Your task to perform on an android device: Search for Mexican restaurants on Maps Image 0: 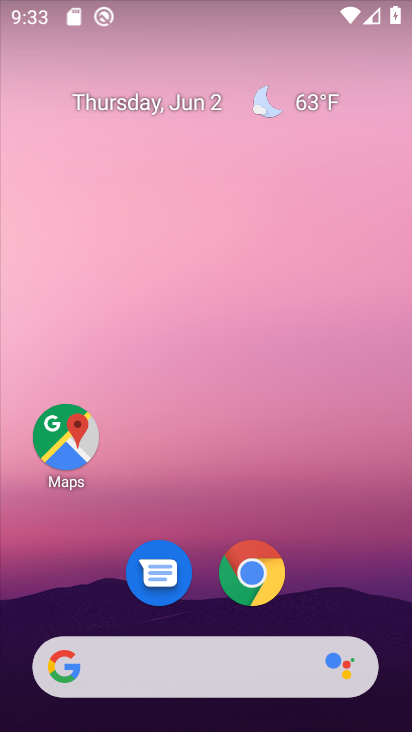
Step 0: click (62, 440)
Your task to perform on an android device: Search for Mexican restaurants on Maps Image 1: 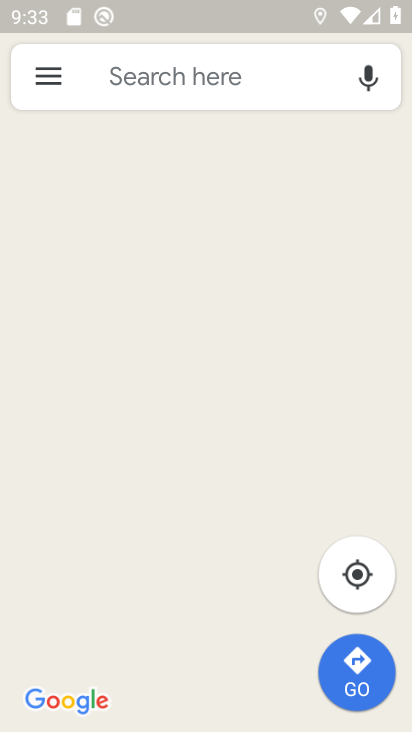
Step 1: click (200, 72)
Your task to perform on an android device: Search for Mexican restaurants on Maps Image 2: 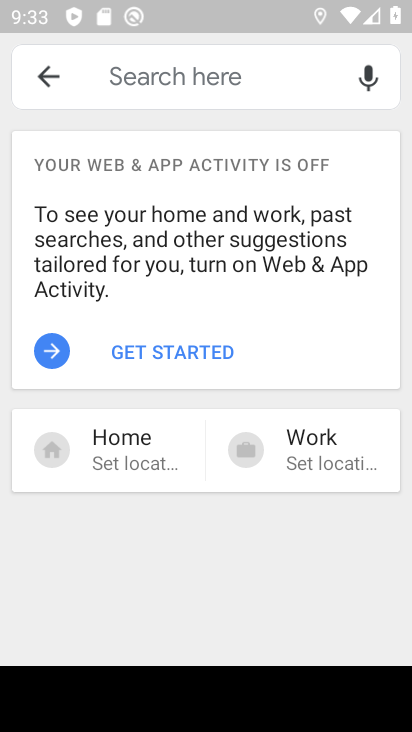
Step 2: click (182, 67)
Your task to perform on an android device: Search for Mexican restaurants on Maps Image 3: 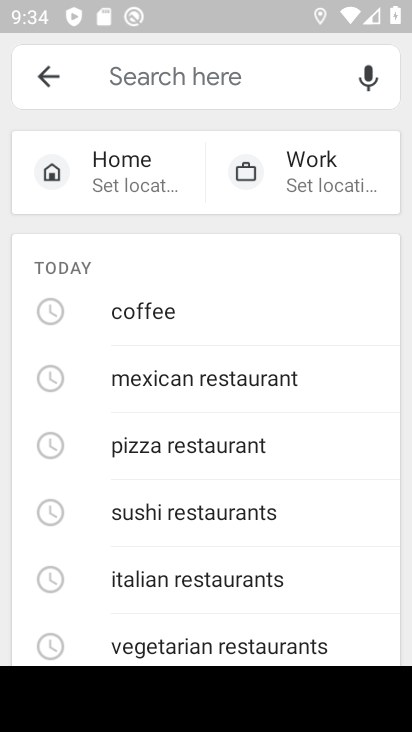
Step 3: type "Mexican restaurants"
Your task to perform on an android device: Search for Mexican restaurants on Maps Image 4: 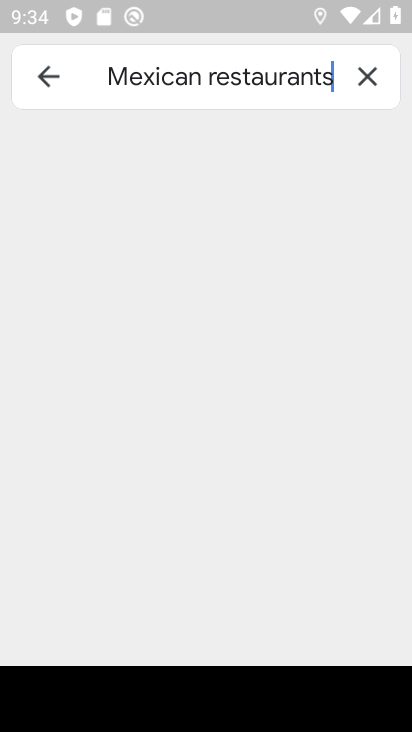
Step 4: type ""
Your task to perform on an android device: Search for Mexican restaurants on Maps Image 5: 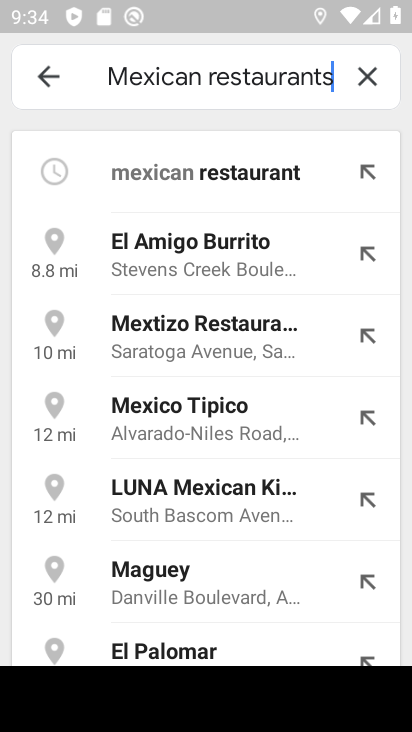
Step 5: click (214, 163)
Your task to perform on an android device: Search for Mexican restaurants on Maps Image 6: 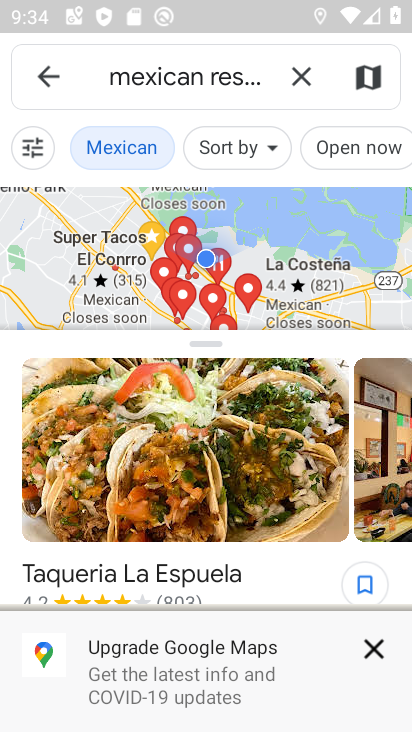
Step 6: task complete